Your task to perform on an android device: check storage Image 0: 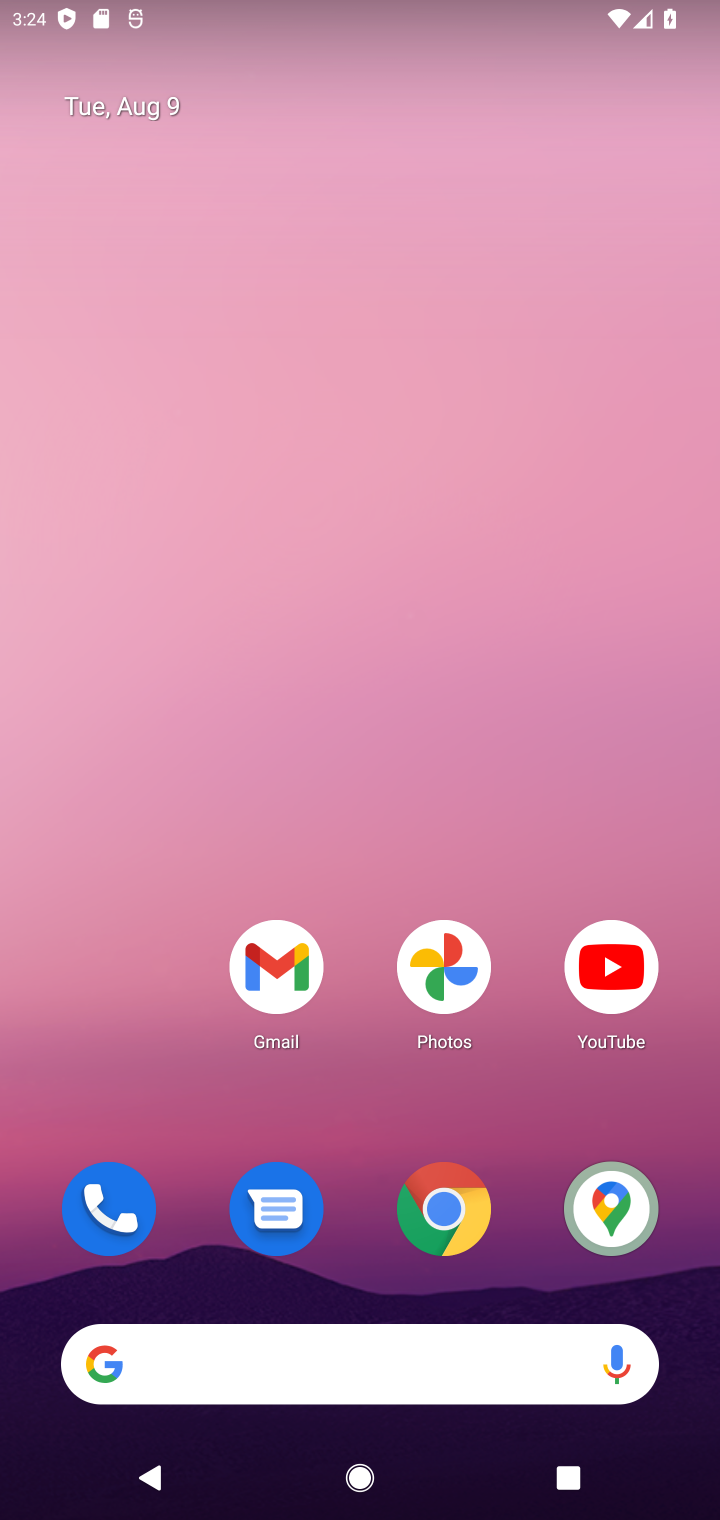
Step 0: drag from (361, 1308) to (394, 228)
Your task to perform on an android device: check storage Image 1: 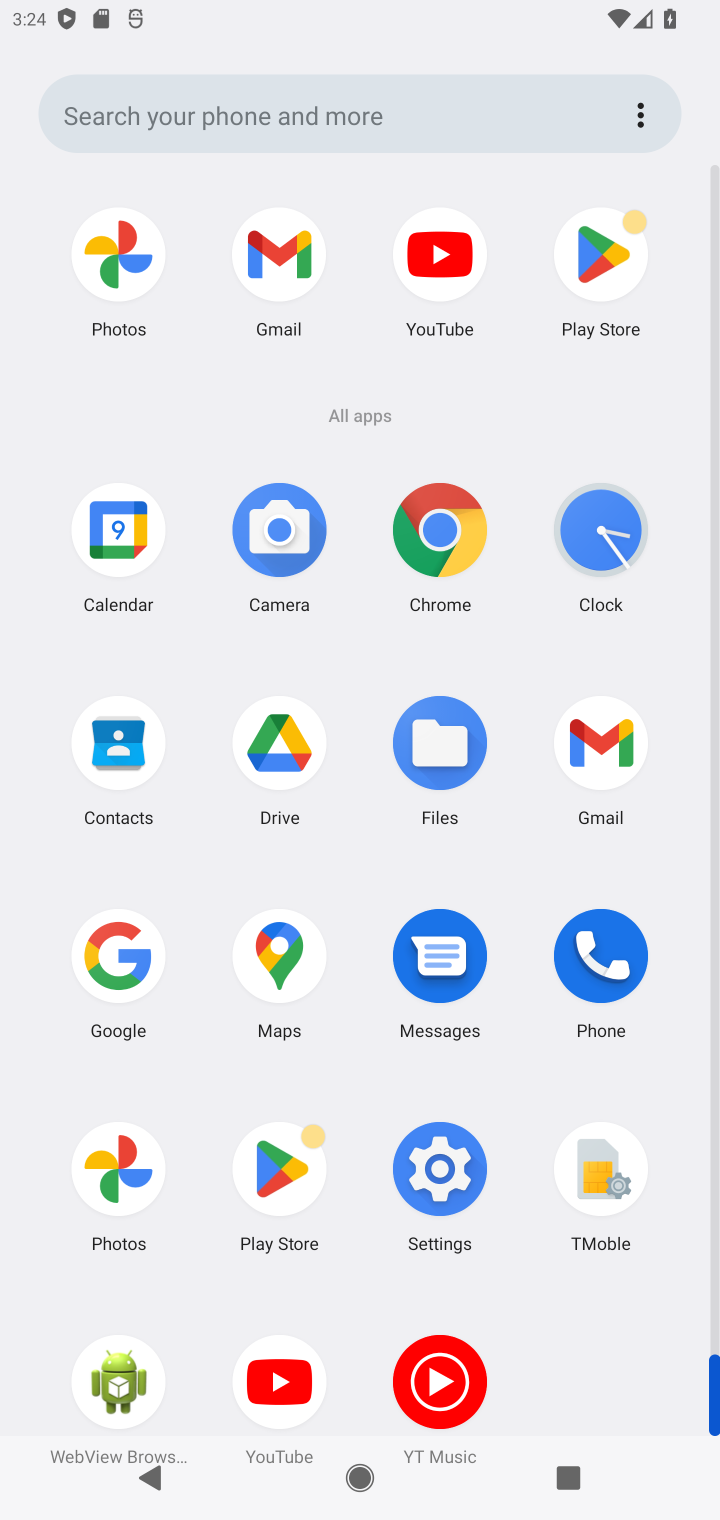
Step 1: click (432, 1176)
Your task to perform on an android device: check storage Image 2: 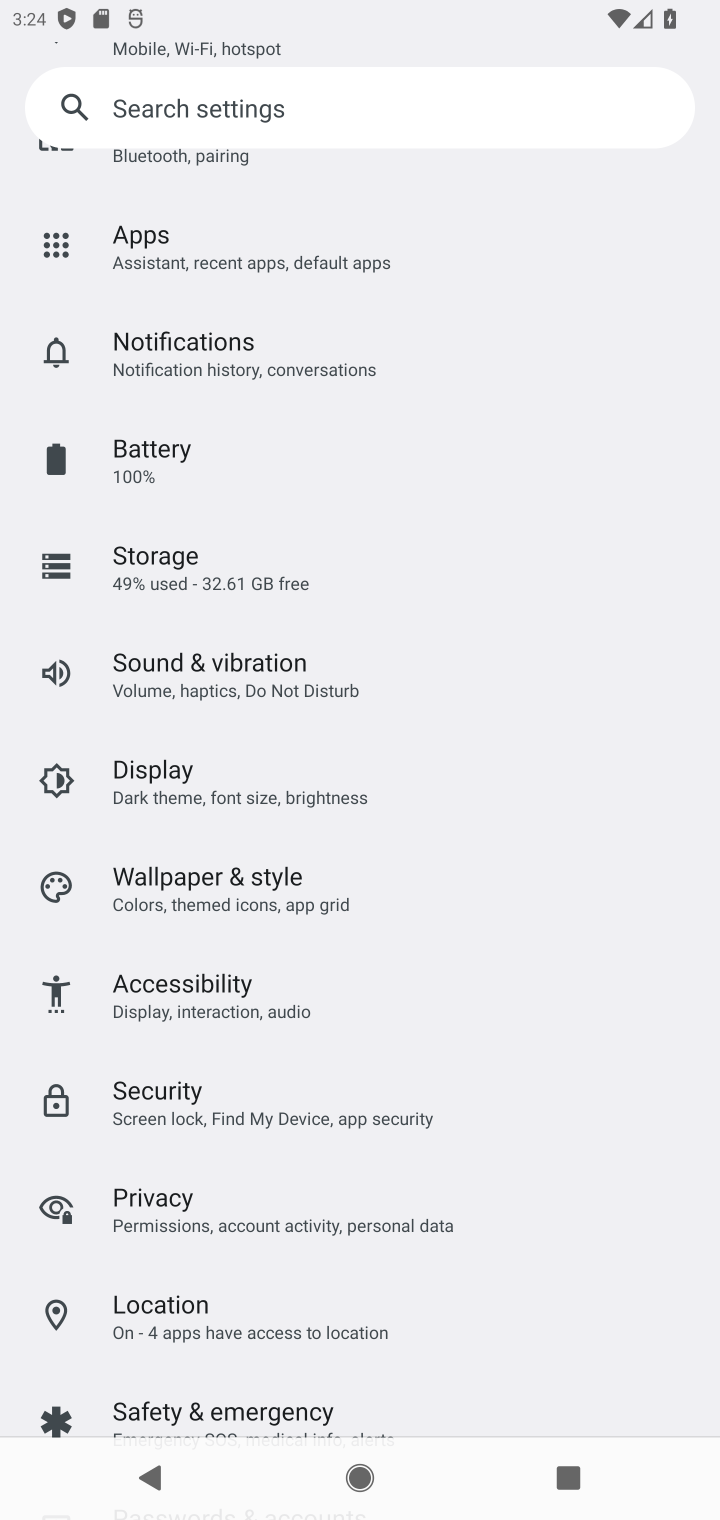
Step 2: click (151, 574)
Your task to perform on an android device: check storage Image 3: 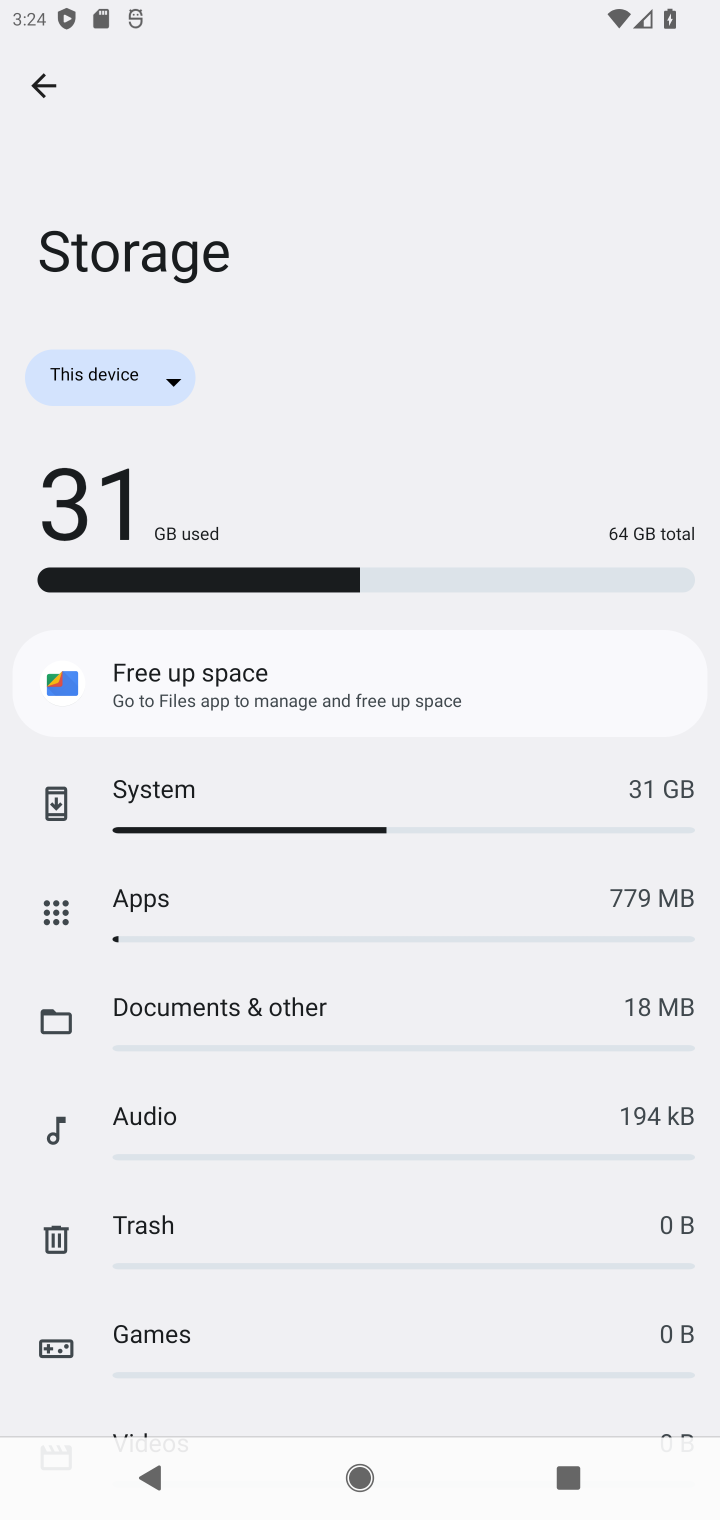
Step 3: task complete